Your task to perform on an android device: uninstall "Facebook Messenger" Image 0: 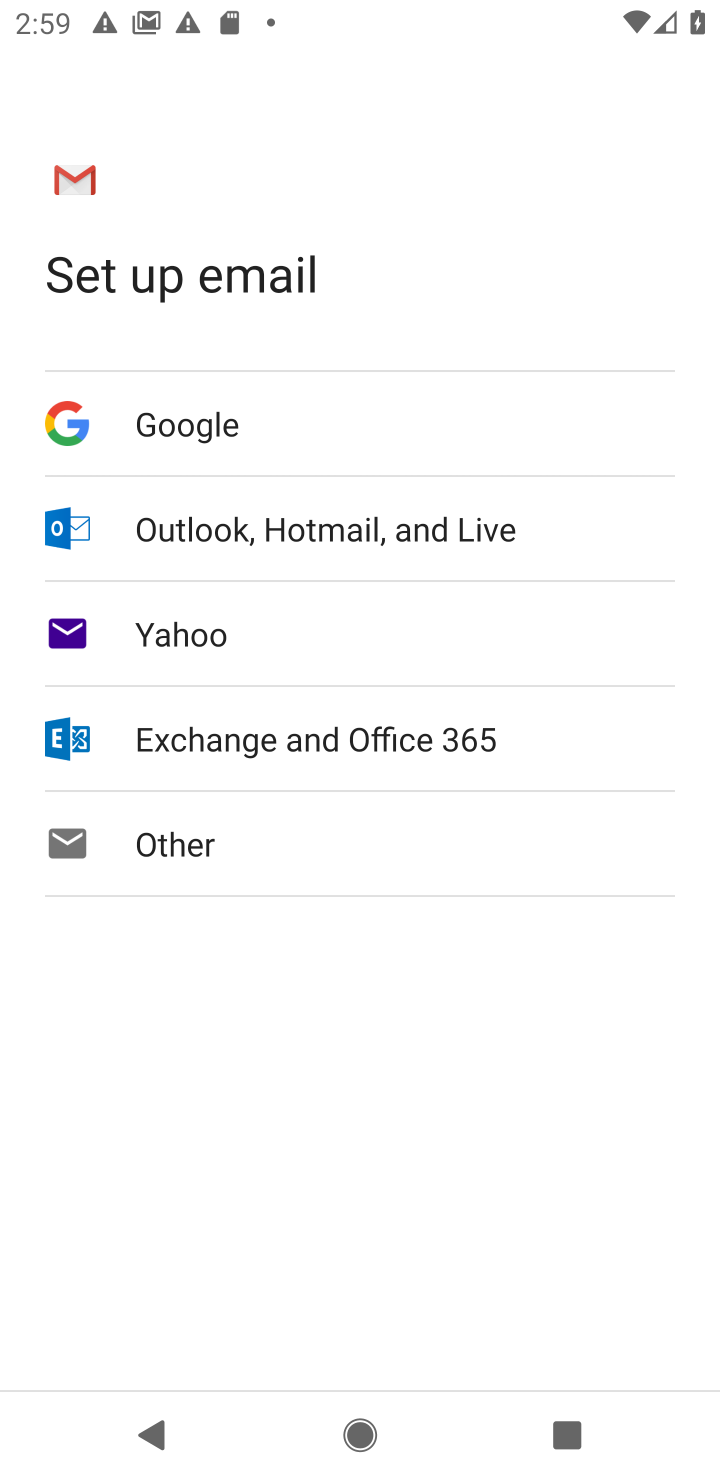
Step 0: press home button
Your task to perform on an android device: uninstall "Facebook Messenger" Image 1: 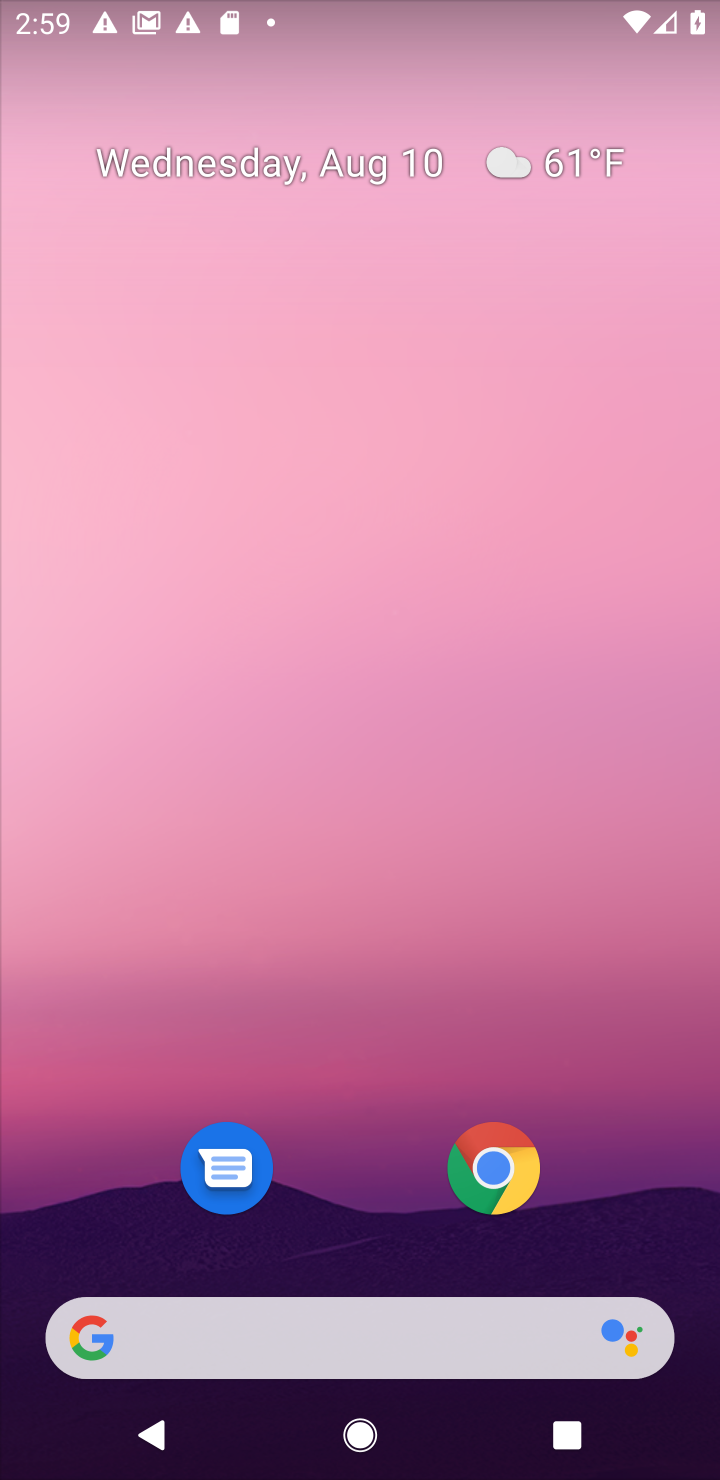
Step 1: drag from (278, 1349) to (332, 473)
Your task to perform on an android device: uninstall "Facebook Messenger" Image 2: 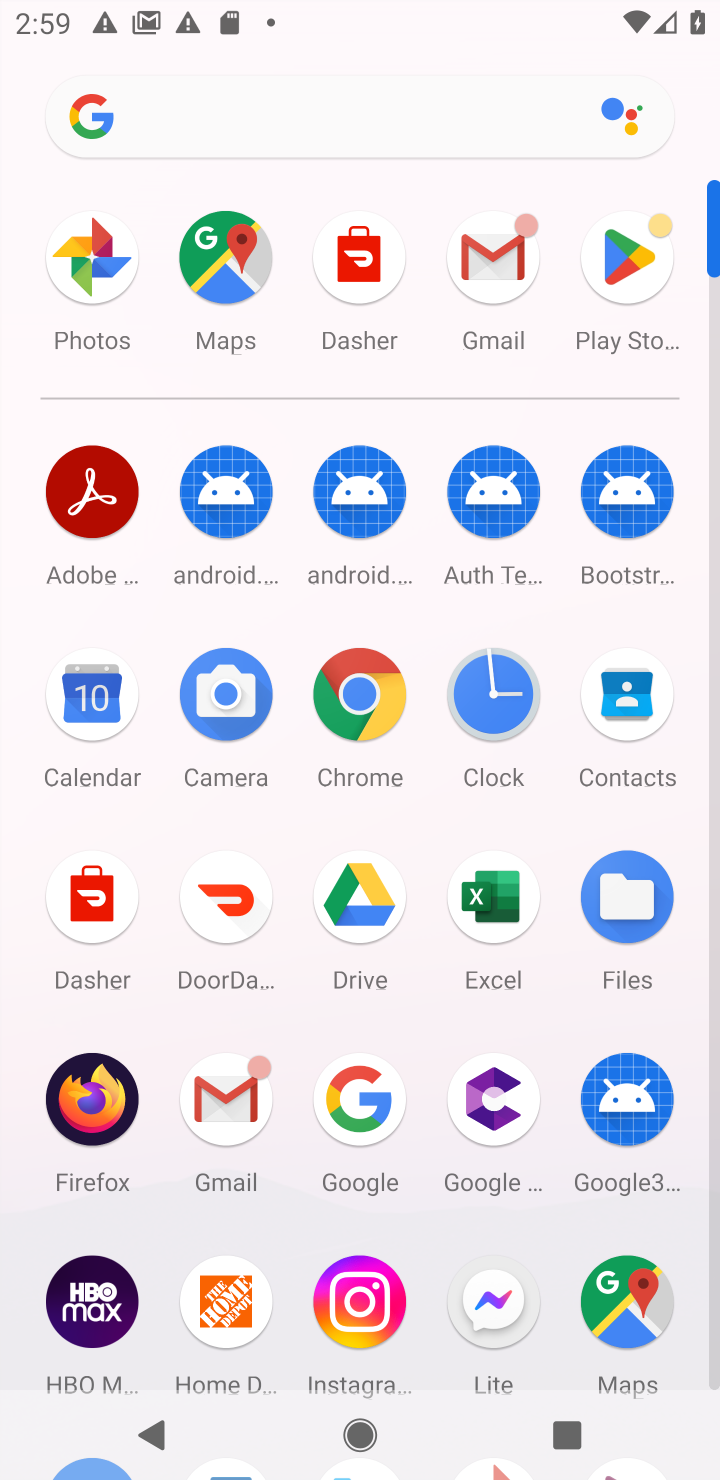
Step 2: click (622, 265)
Your task to perform on an android device: uninstall "Facebook Messenger" Image 3: 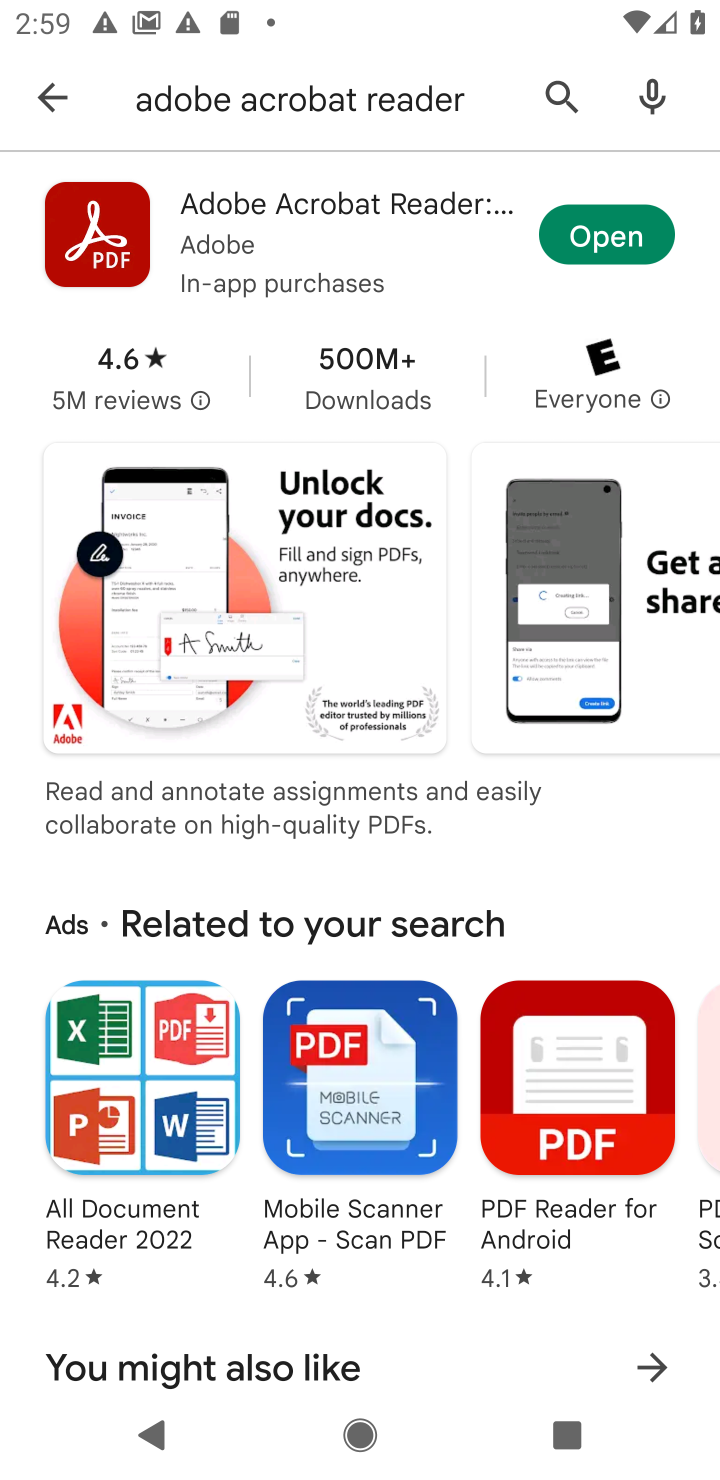
Step 3: click (570, 101)
Your task to perform on an android device: uninstall "Facebook Messenger" Image 4: 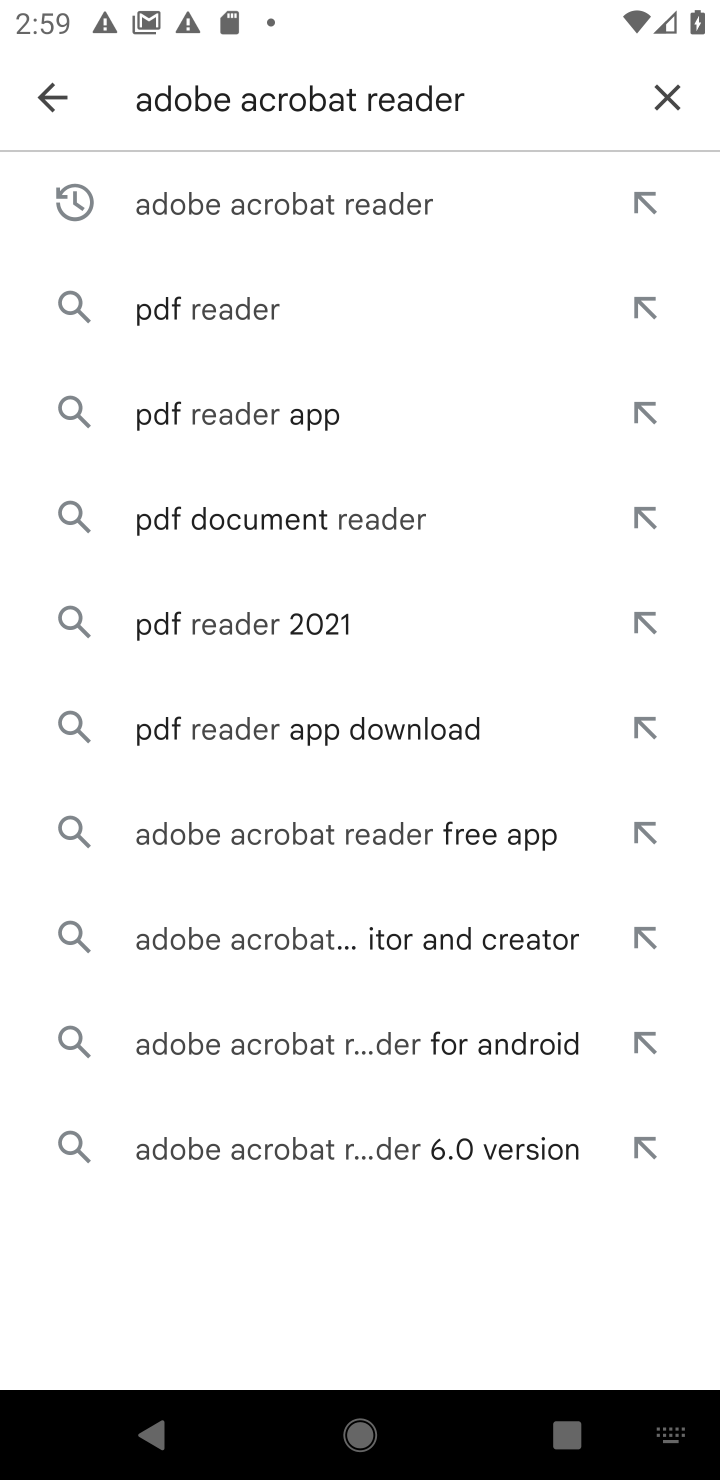
Step 4: press back button
Your task to perform on an android device: uninstall "Facebook Messenger" Image 5: 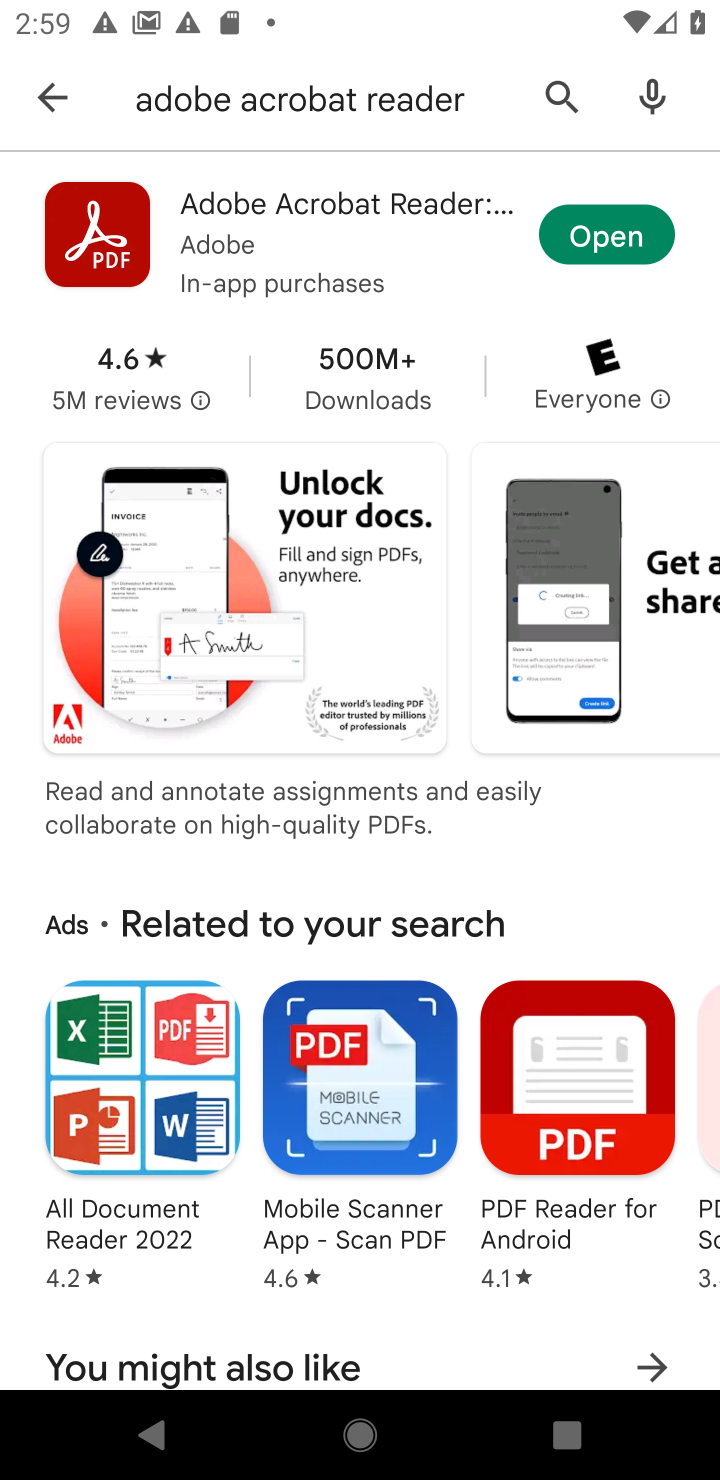
Step 5: press back button
Your task to perform on an android device: uninstall "Facebook Messenger" Image 6: 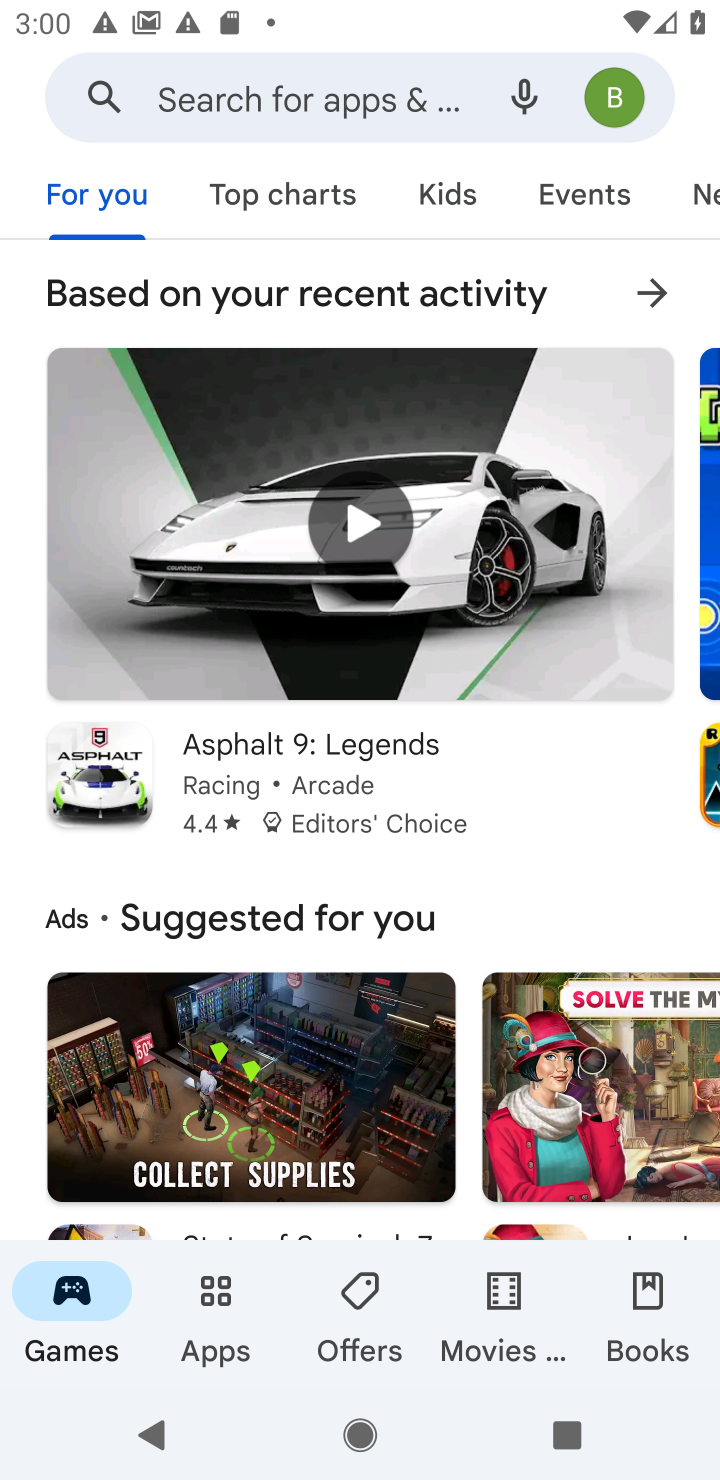
Step 6: click (346, 91)
Your task to perform on an android device: uninstall "Facebook Messenger" Image 7: 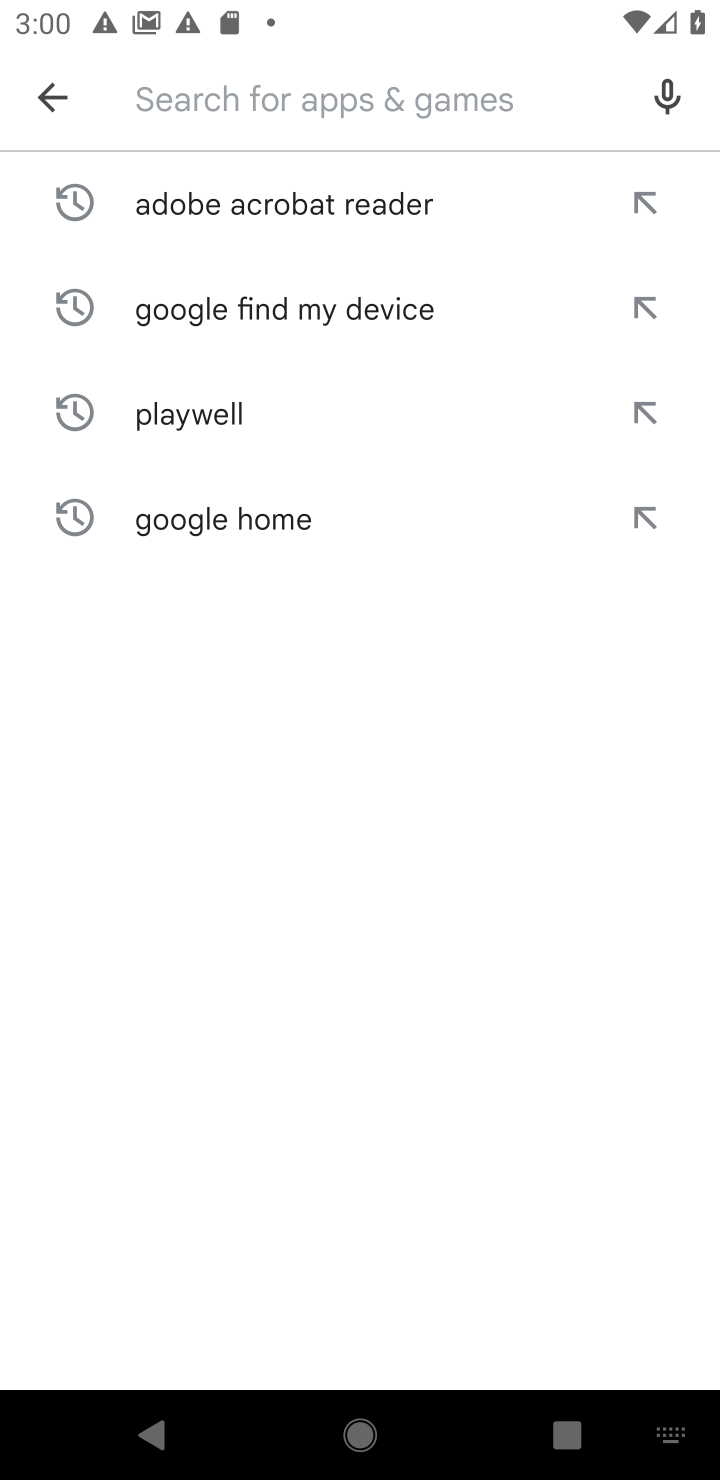
Step 7: type "Facebook Messenger"
Your task to perform on an android device: uninstall "Facebook Messenger" Image 8: 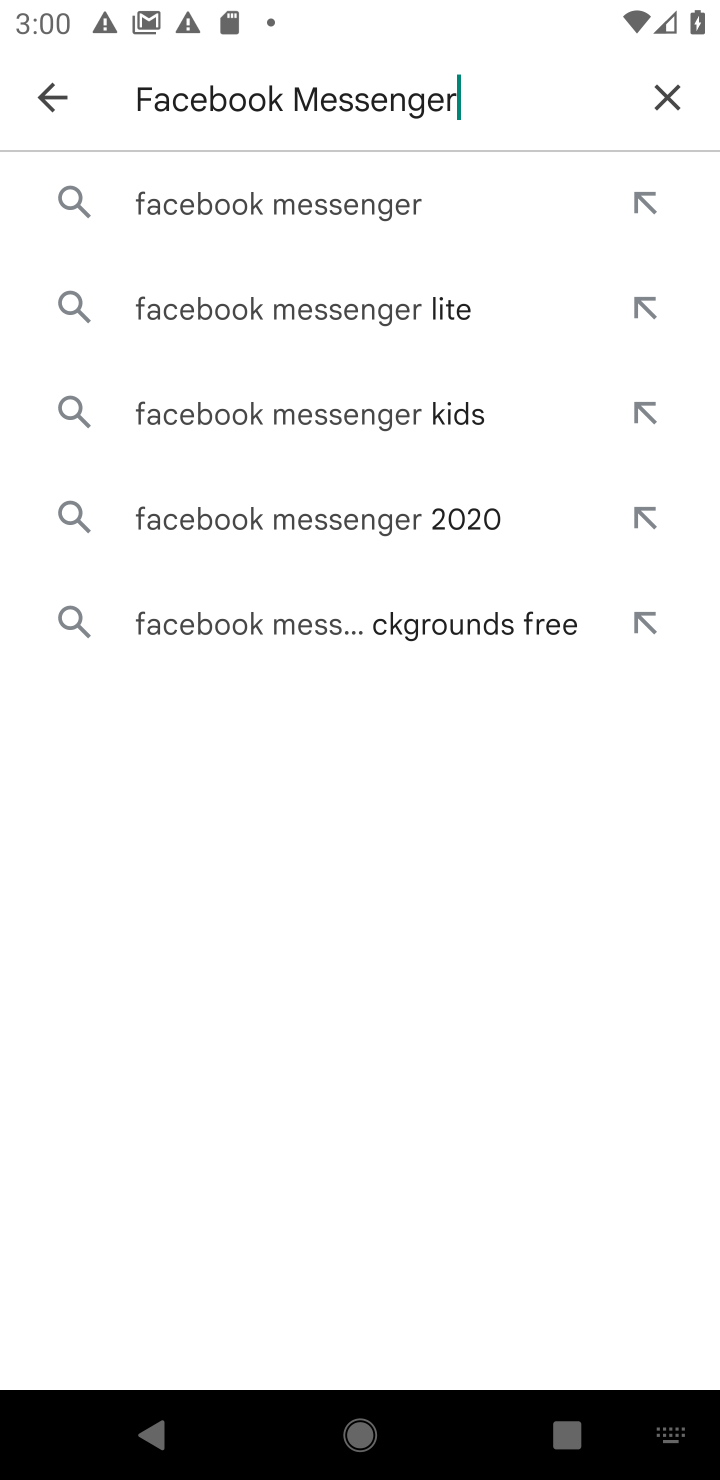
Step 8: click (375, 202)
Your task to perform on an android device: uninstall "Facebook Messenger" Image 9: 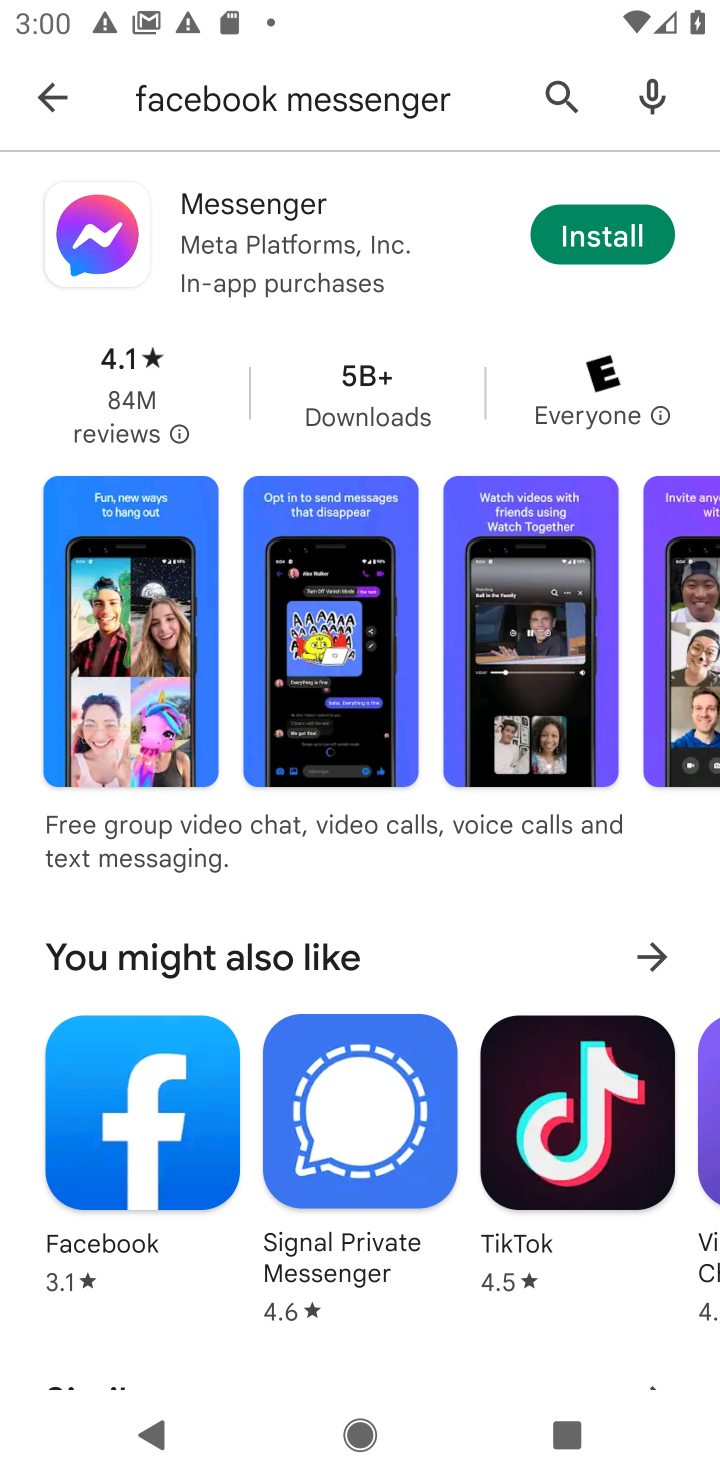
Step 9: task complete